Your task to perform on an android device: Open the calendar and show me this week's events? Image 0: 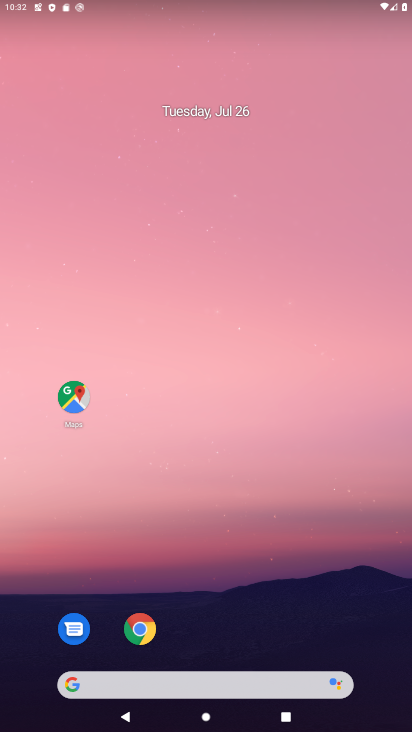
Step 0: drag from (334, 661) to (294, 17)
Your task to perform on an android device: Open the calendar and show me this week's events? Image 1: 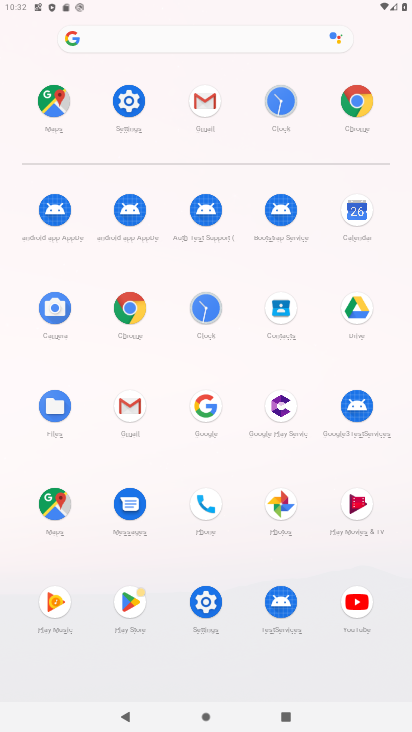
Step 1: click (281, 120)
Your task to perform on an android device: Open the calendar and show me this week's events? Image 2: 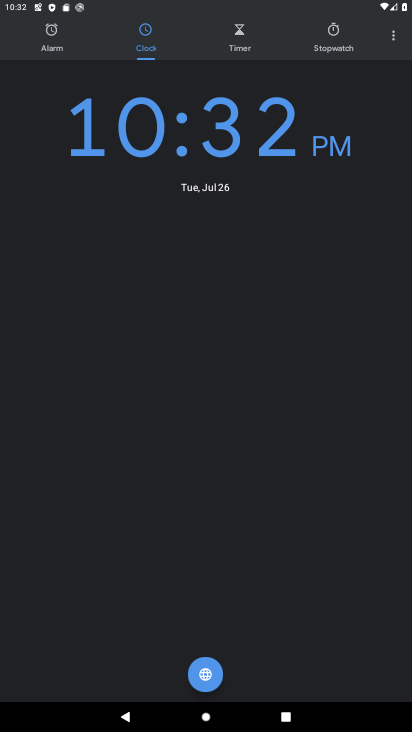
Step 2: press home button
Your task to perform on an android device: Open the calendar and show me this week's events? Image 3: 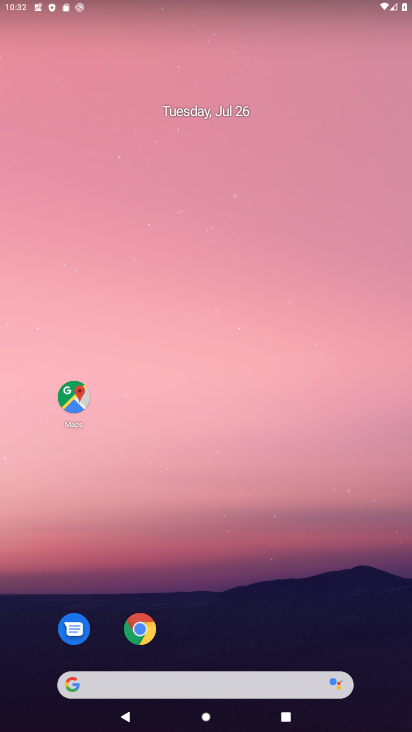
Step 3: drag from (294, 627) to (272, 90)
Your task to perform on an android device: Open the calendar and show me this week's events? Image 4: 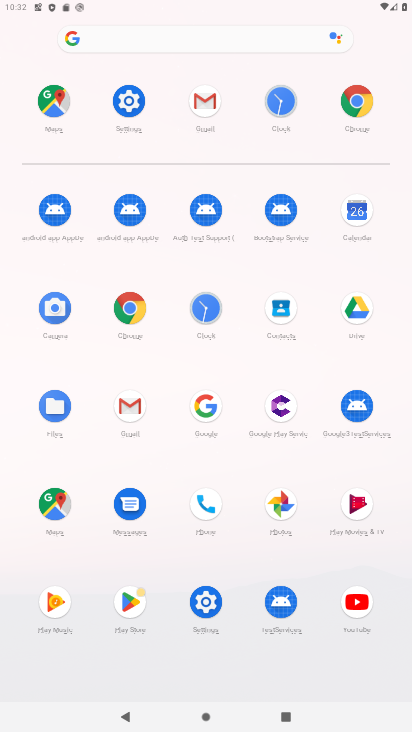
Step 4: click (372, 225)
Your task to perform on an android device: Open the calendar and show me this week's events? Image 5: 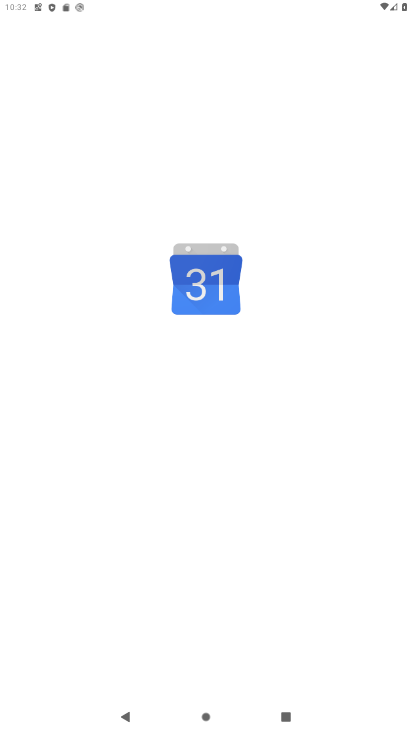
Step 5: task complete